Your task to perform on an android device: What's the weather going to be tomorrow? Image 0: 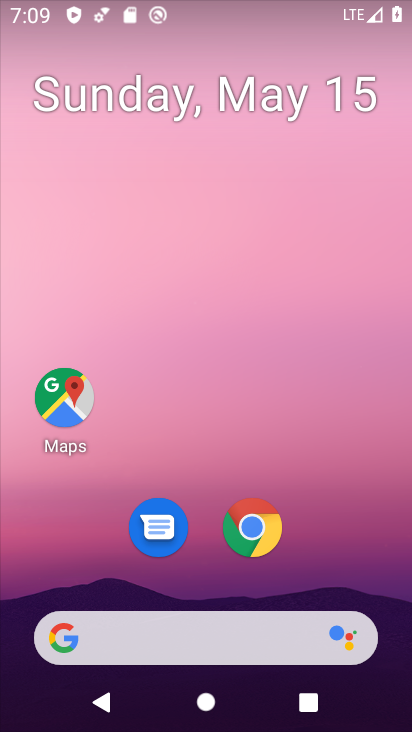
Step 0: drag from (370, 532) to (357, 126)
Your task to perform on an android device: What's the weather going to be tomorrow? Image 1: 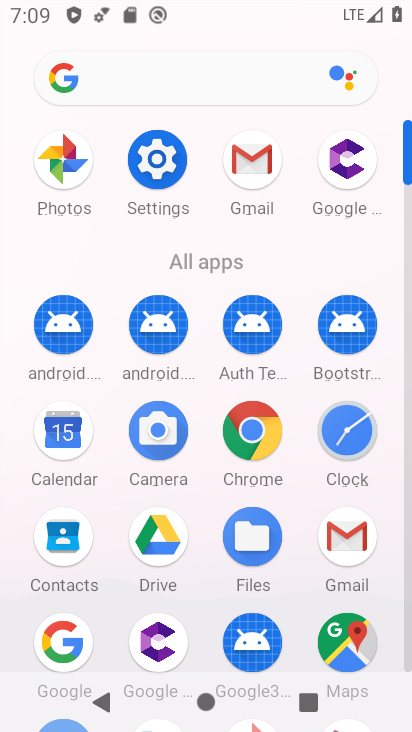
Step 1: press home button
Your task to perform on an android device: What's the weather going to be tomorrow? Image 2: 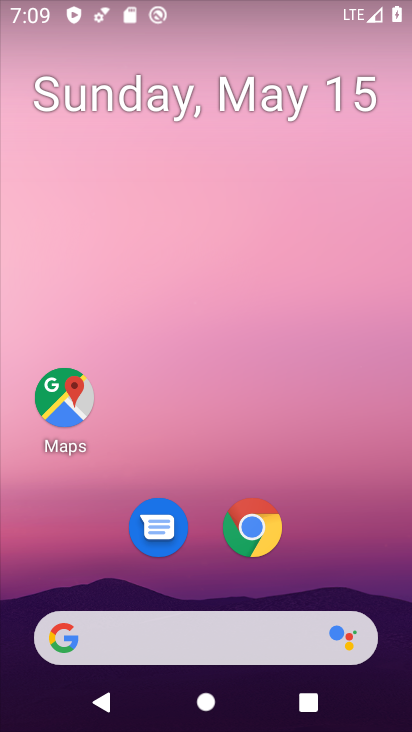
Step 2: click (62, 621)
Your task to perform on an android device: What's the weather going to be tomorrow? Image 3: 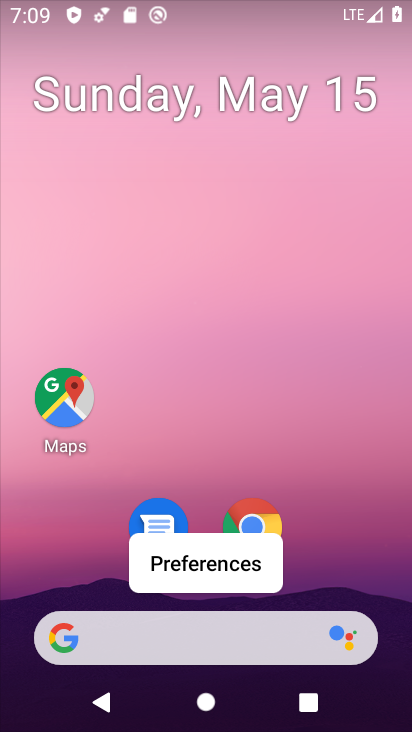
Step 3: click (79, 645)
Your task to perform on an android device: What's the weather going to be tomorrow? Image 4: 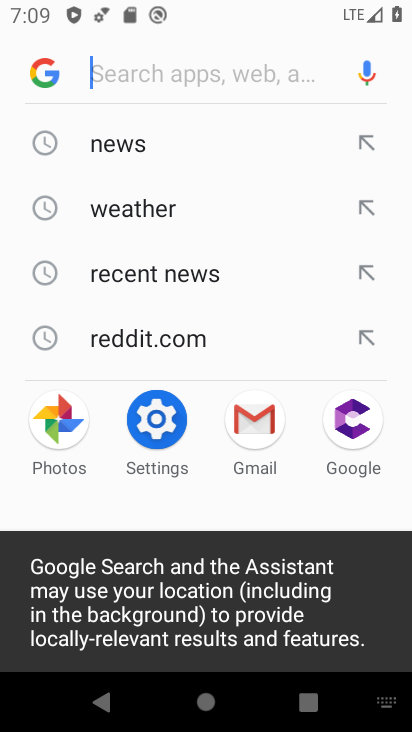
Step 4: click (47, 93)
Your task to perform on an android device: What's the weather going to be tomorrow? Image 5: 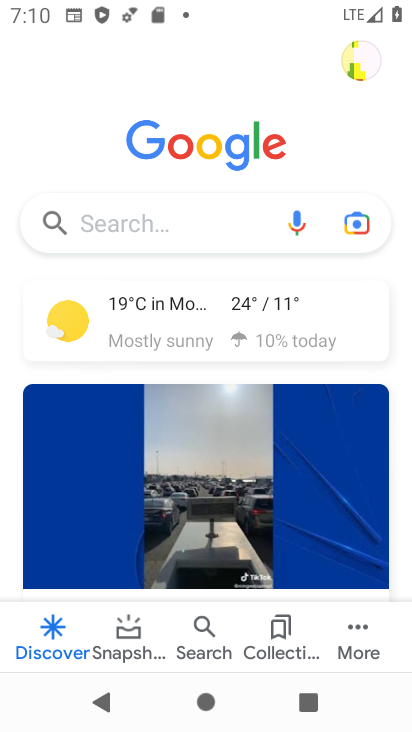
Step 5: click (82, 336)
Your task to perform on an android device: What's the weather going to be tomorrow? Image 6: 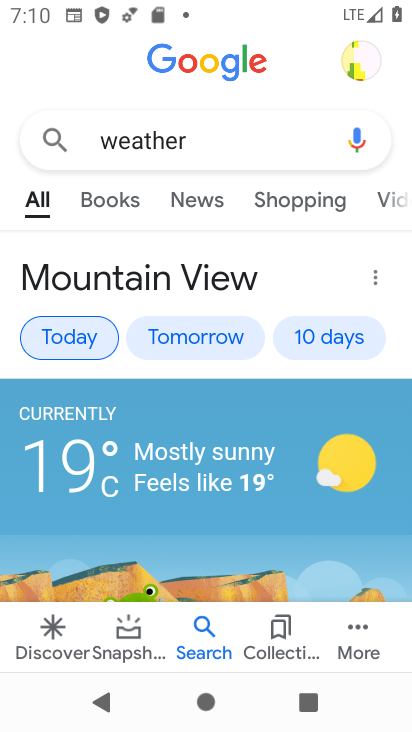
Step 6: task complete